Your task to perform on an android device: open chrome and create a bookmark for the current page Image 0: 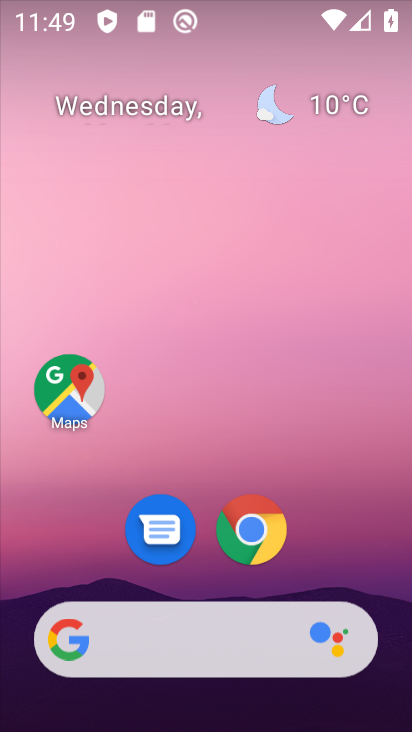
Step 0: click (260, 520)
Your task to perform on an android device: open chrome and create a bookmark for the current page Image 1: 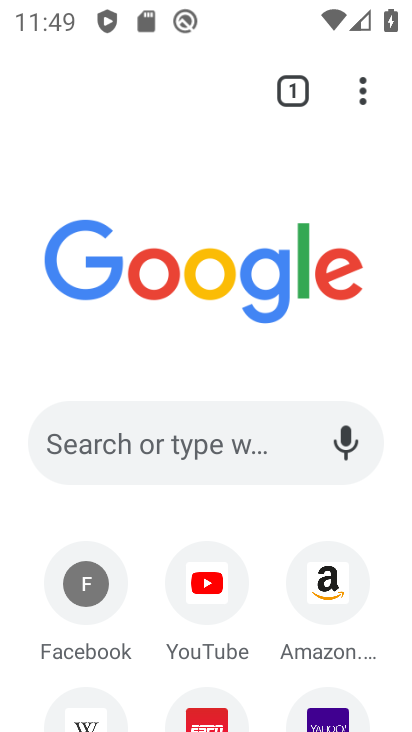
Step 1: click (361, 86)
Your task to perform on an android device: open chrome and create a bookmark for the current page Image 2: 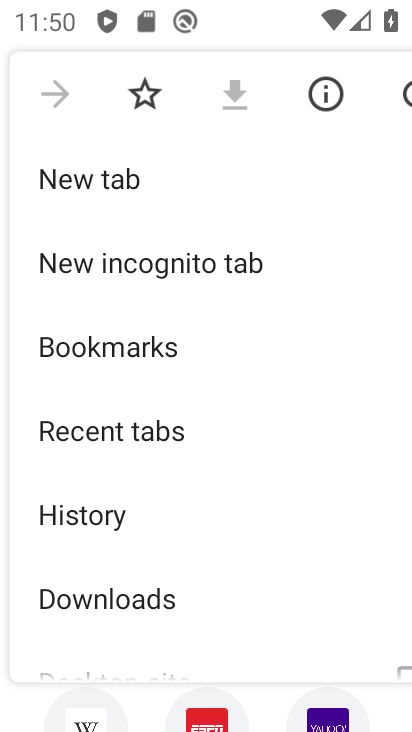
Step 2: click (139, 101)
Your task to perform on an android device: open chrome and create a bookmark for the current page Image 3: 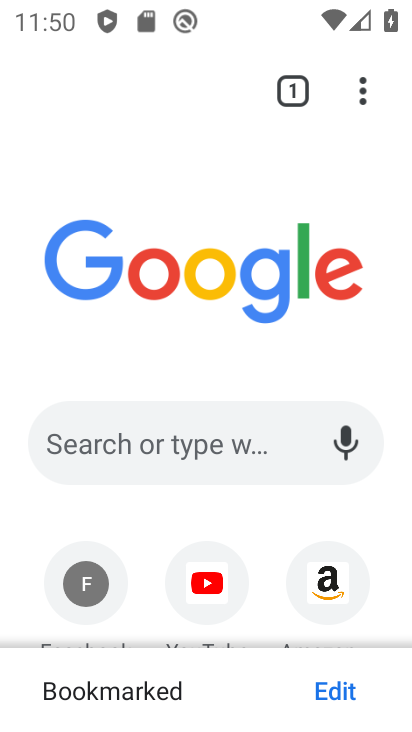
Step 3: task complete